Your task to perform on an android device: choose inbox layout in the gmail app Image 0: 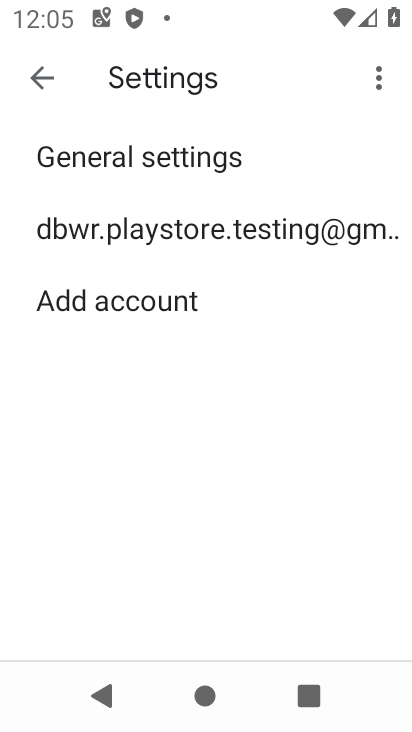
Step 0: click (159, 225)
Your task to perform on an android device: choose inbox layout in the gmail app Image 1: 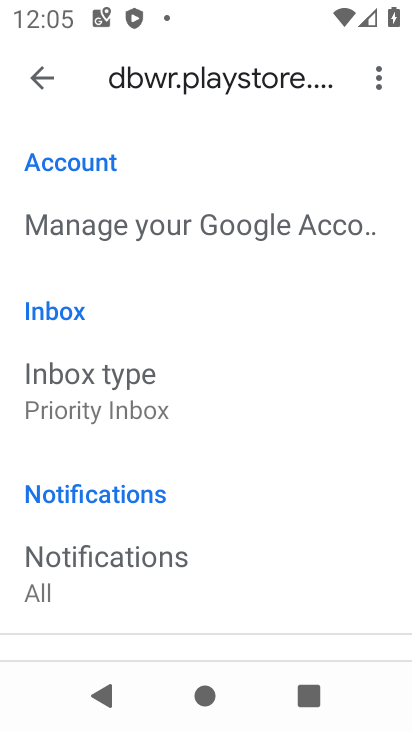
Step 1: click (82, 403)
Your task to perform on an android device: choose inbox layout in the gmail app Image 2: 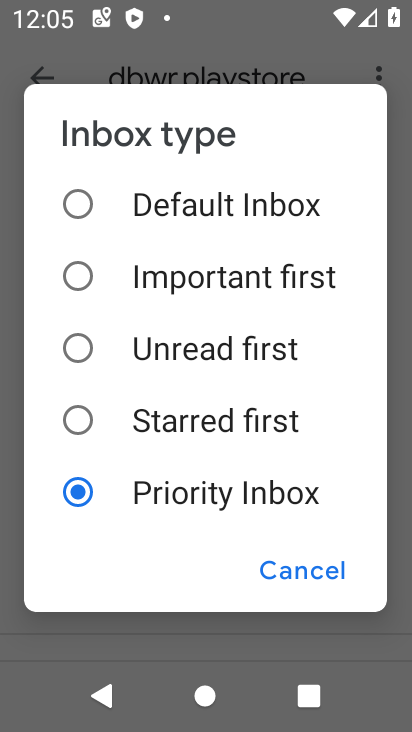
Step 2: click (80, 205)
Your task to perform on an android device: choose inbox layout in the gmail app Image 3: 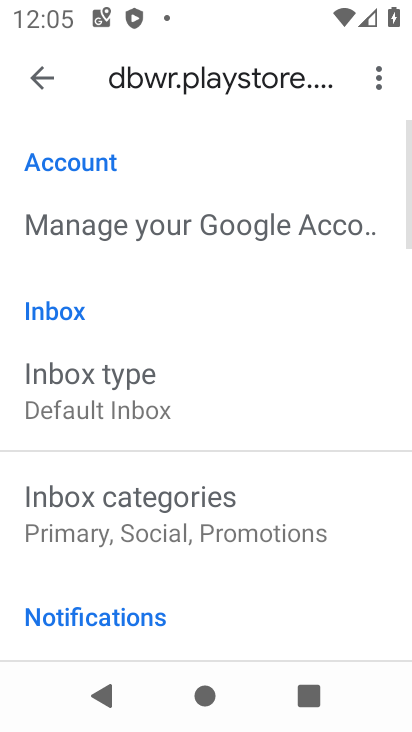
Step 3: task complete